Your task to perform on an android device: set default search engine in the chrome app Image 0: 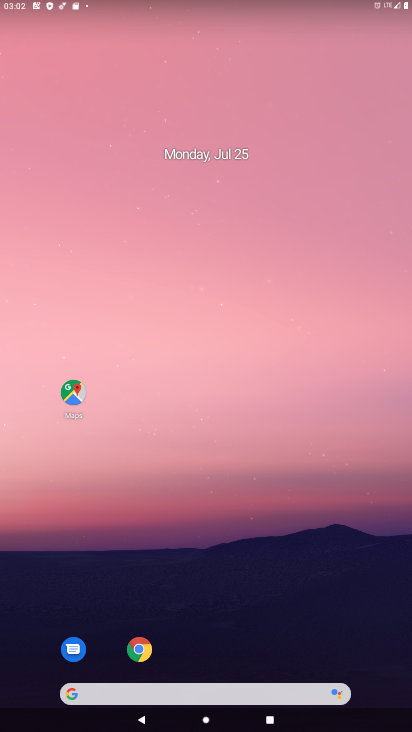
Step 0: click (143, 651)
Your task to perform on an android device: set default search engine in the chrome app Image 1: 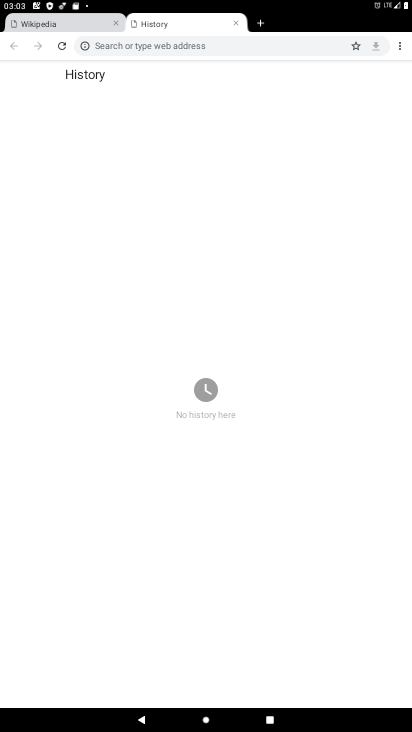
Step 1: click (401, 49)
Your task to perform on an android device: set default search engine in the chrome app Image 2: 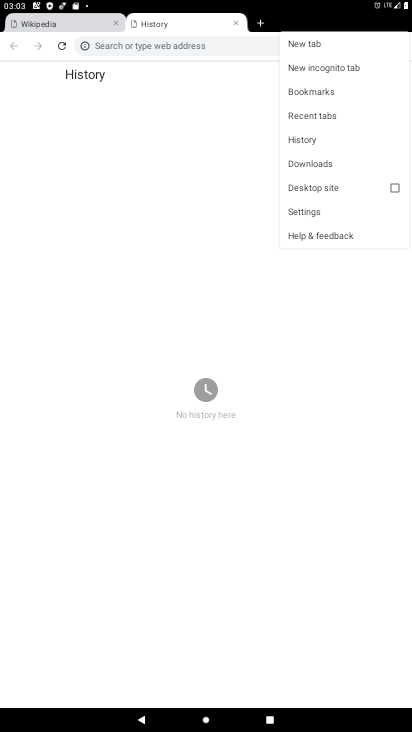
Step 2: click (306, 212)
Your task to perform on an android device: set default search engine in the chrome app Image 3: 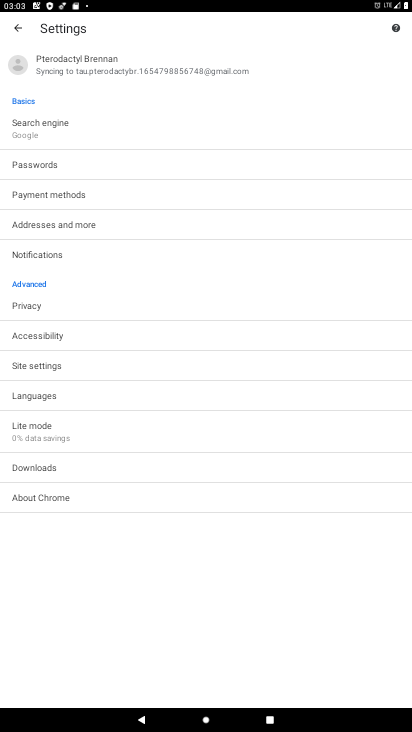
Step 3: click (33, 121)
Your task to perform on an android device: set default search engine in the chrome app Image 4: 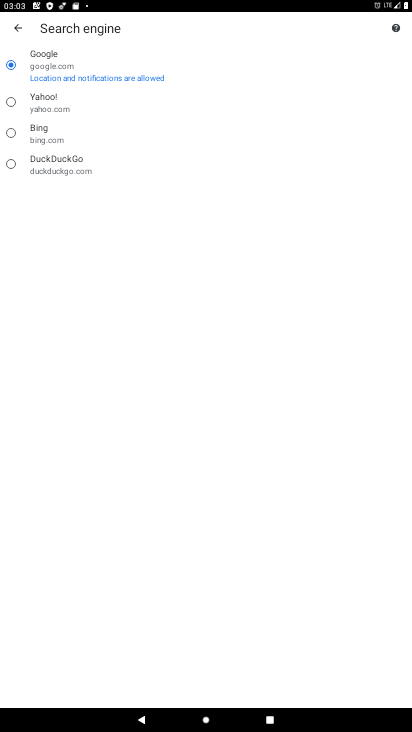
Step 4: click (9, 103)
Your task to perform on an android device: set default search engine in the chrome app Image 5: 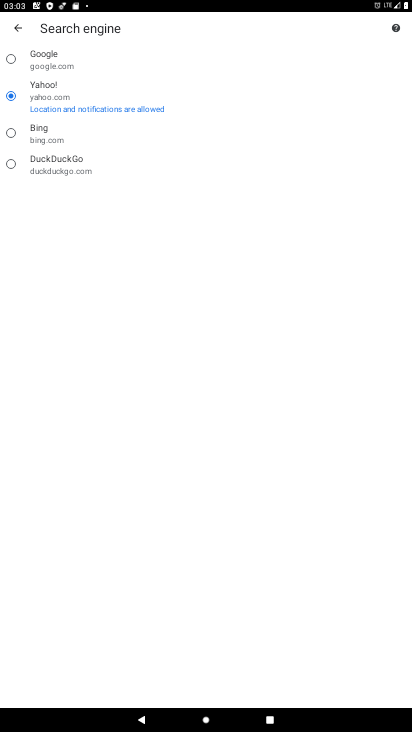
Step 5: task complete